Your task to perform on an android device: toggle javascript in the chrome app Image 0: 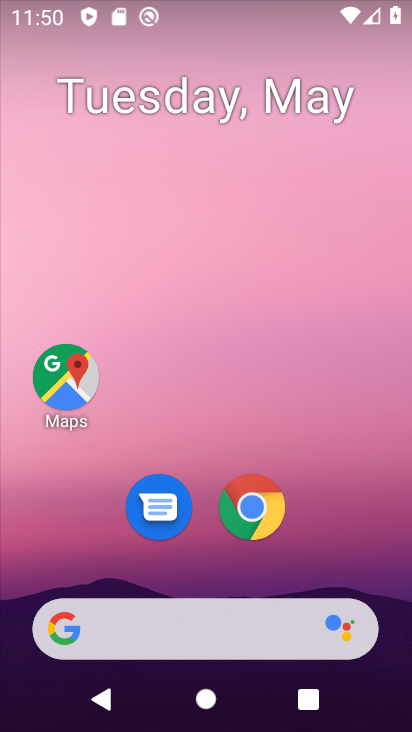
Step 0: press home button
Your task to perform on an android device: toggle javascript in the chrome app Image 1: 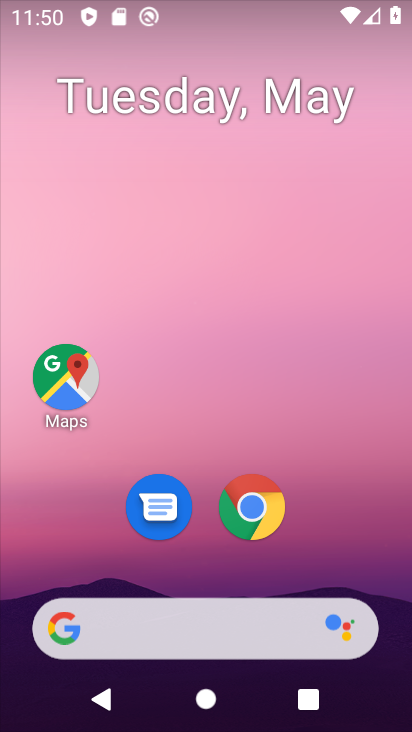
Step 1: click (258, 530)
Your task to perform on an android device: toggle javascript in the chrome app Image 2: 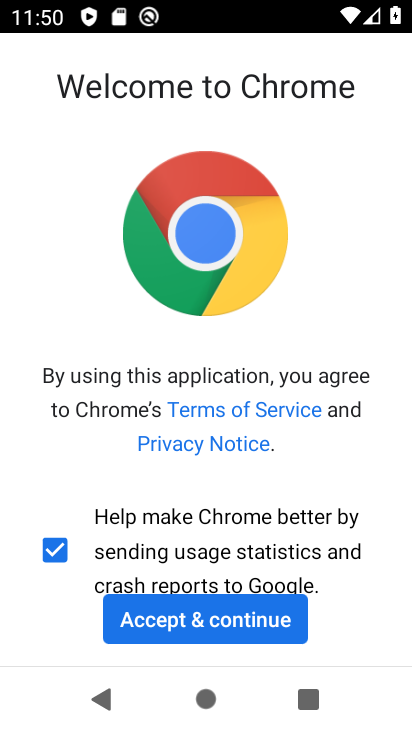
Step 2: click (271, 628)
Your task to perform on an android device: toggle javascript in the chrome app Image 3: 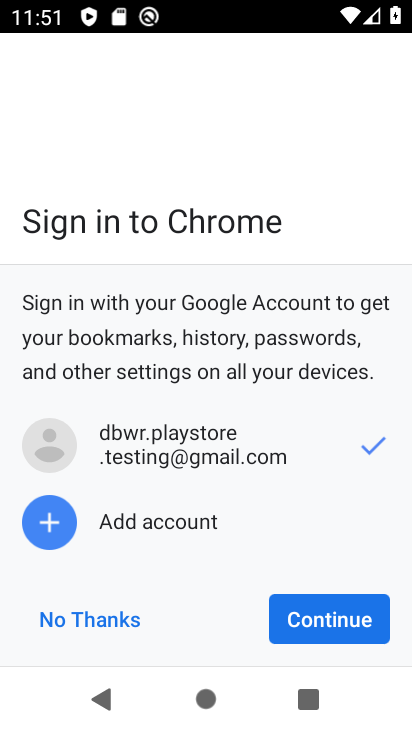
Step 3: click (308, 624)
Your task to perform on an android device: toggle javascript in the chrome app Image 4: 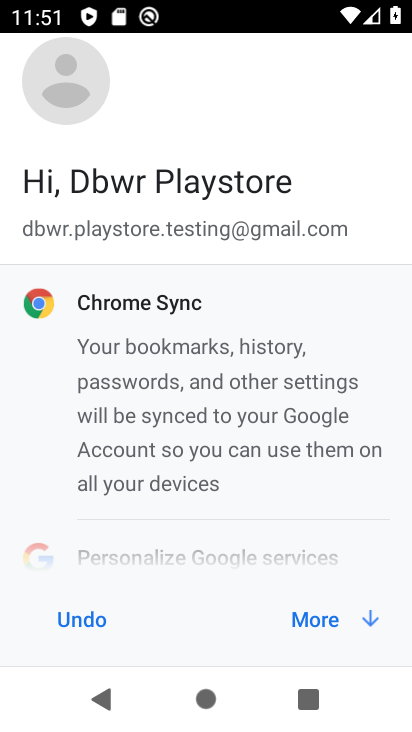
Step 4: click (351, 627)
Your task to perform on an android device: toggle javascript in the chrome app Image 5: 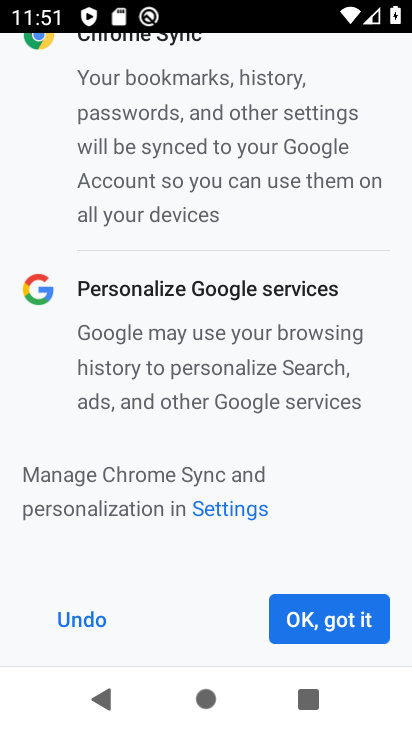
Step 5: click (351, 627)
Your task to perform on an android device: toggle javascript in the chrome app Image 6: 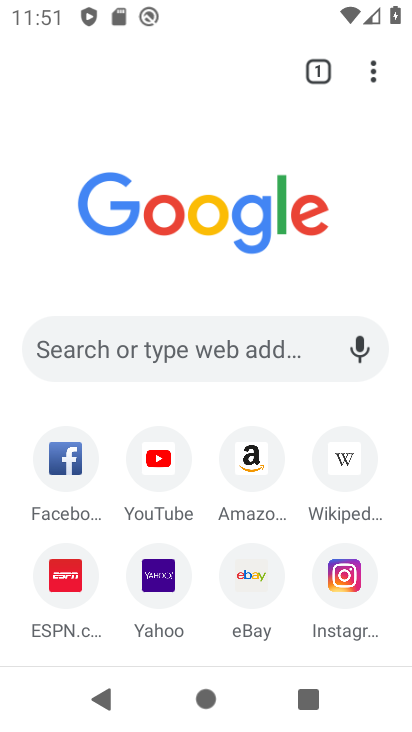
Step 6: click (371, 82)
Your task to perform on an android device: toggle javascript in the chrome app Image 7: 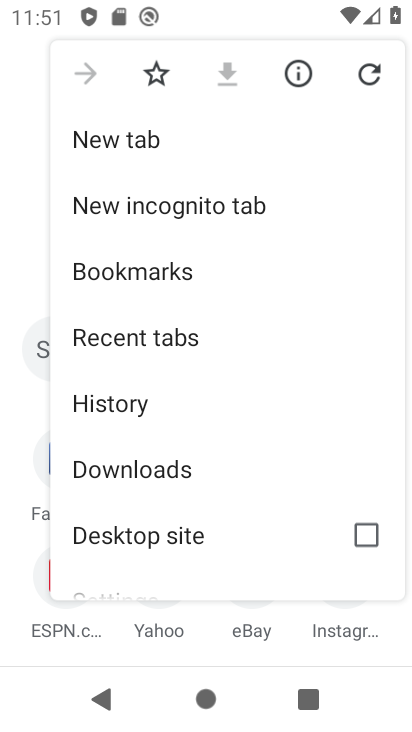
Step 7: drag from (318, 581) to (204, 102)
Your task to perform on an android device: toggle javascript in the chrome app Image 8: 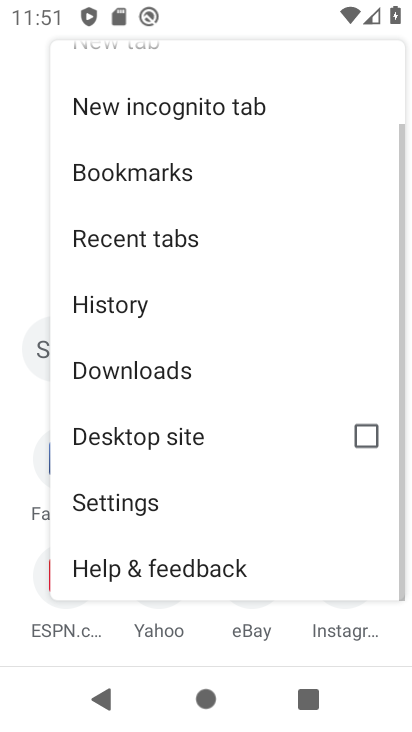
Step 8: click (285, 511)
Your task to perform on an android device: toggle javascript in the chrome app Image 9: 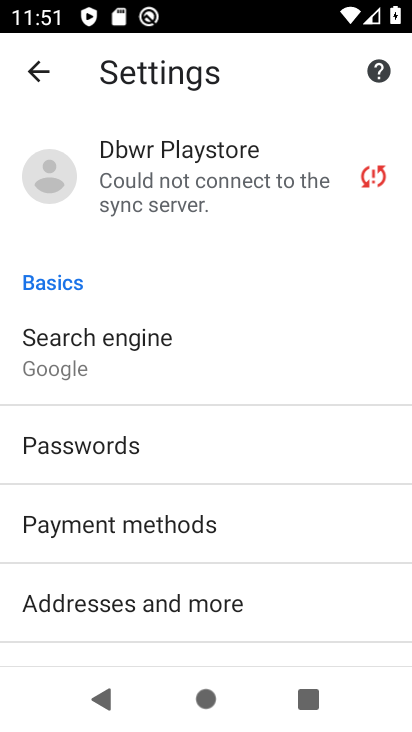
Step 9: drag from (344, 660) to (217, 227)
Your task to perform on an android device: toggle javascript in the chrome app Image 10: 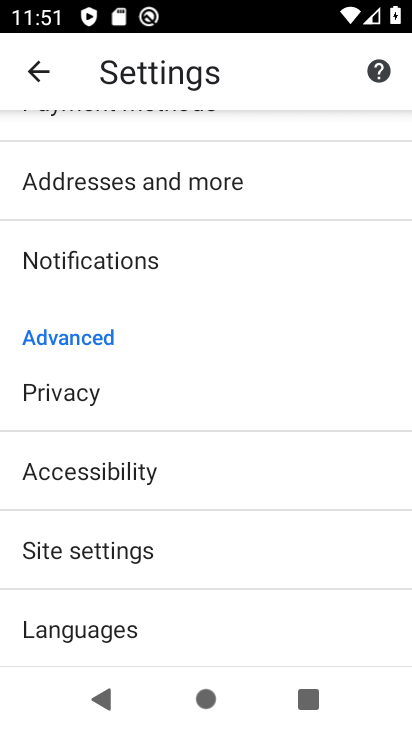
Step 10: click (249, 525)
Your task to perform on an android device: toggle javascript in the chrome app Image 11: 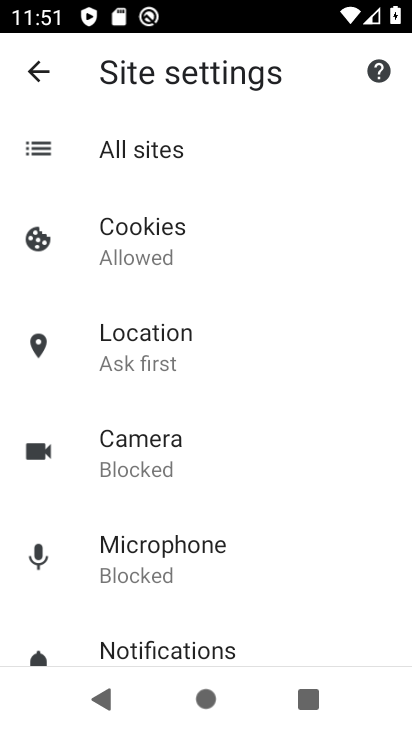
Step 11: drag from (265, 609) to (212, 390)
Your task to perform on an android device: toggle javascript in the chrome app Image 12: 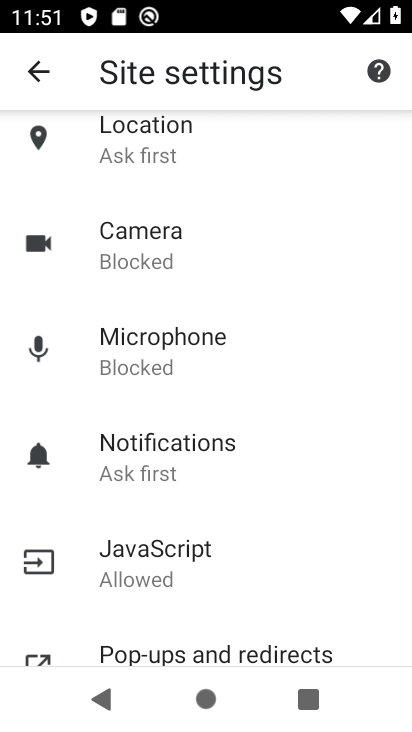
Step 12: click (276, 567)
Your task to perform on an android device: toggle javascript in the chrome app Image 13: 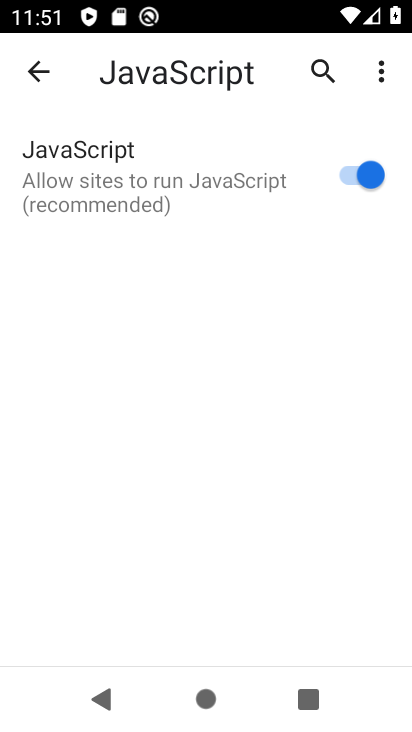
Step 13: click (363, 173)
Your task to perform on an android device: toggle javascript in the chrome app Image 14: 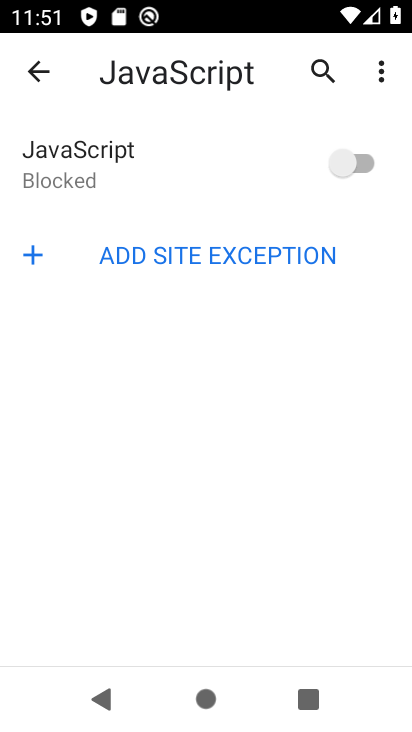
Step 14: task complete